Your task to perform on an android device: manage bookmarks in the chrome app Image 0: 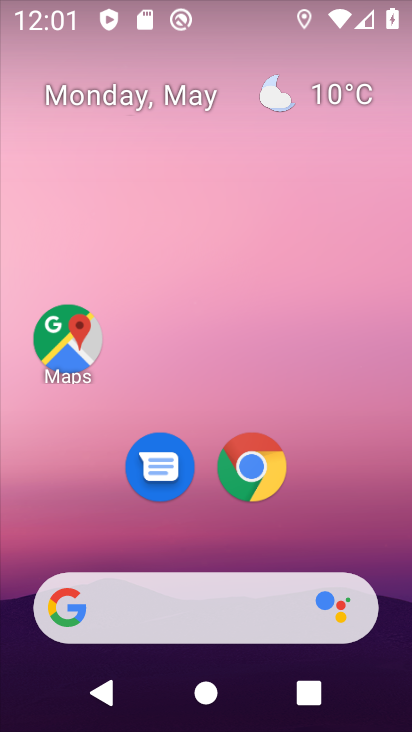
Step 0: click (370, 521)
Your task to perform on an android device: manage bookmarks in the chrome app Image 1: 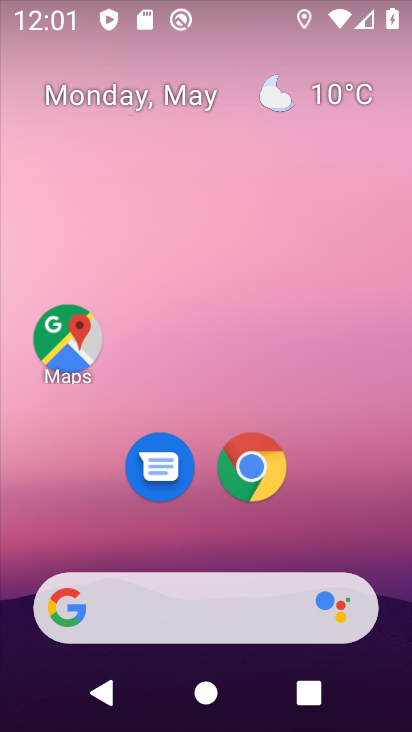
Step 1: drag from (369, 522) to (368, 158)
Your task to perform on an android device: manage bookmarks in the chrome app Image 2: 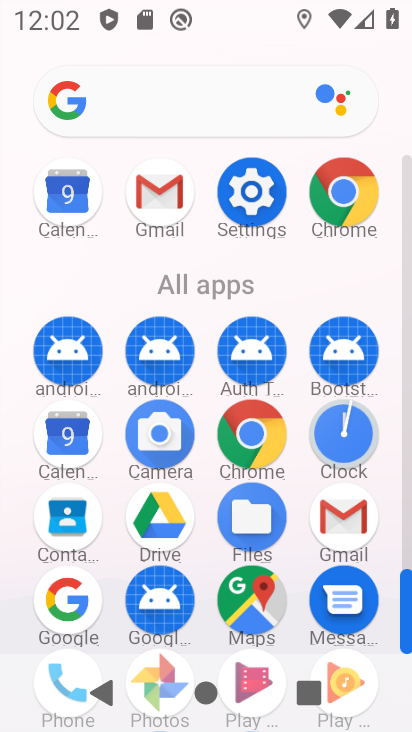
Step 2: click (239, 452)
Your task to perform on an android device: manage bookmarks in the chrome app Image 3: 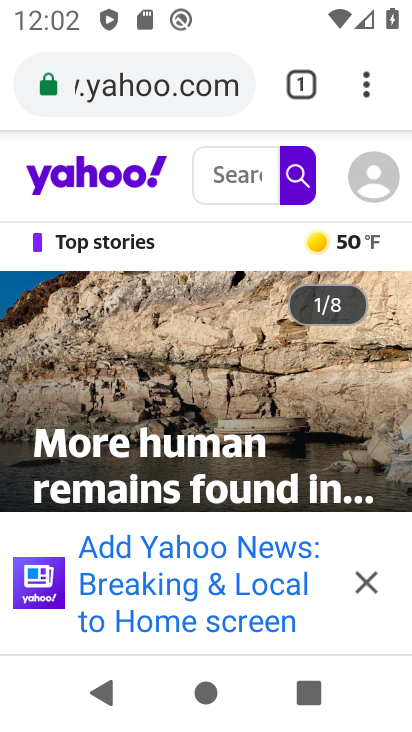
Step 3: drag from (373, 90) to (200, 329)
Your task to perform on an android device: manage bookmarks in the chrome app Image 4: 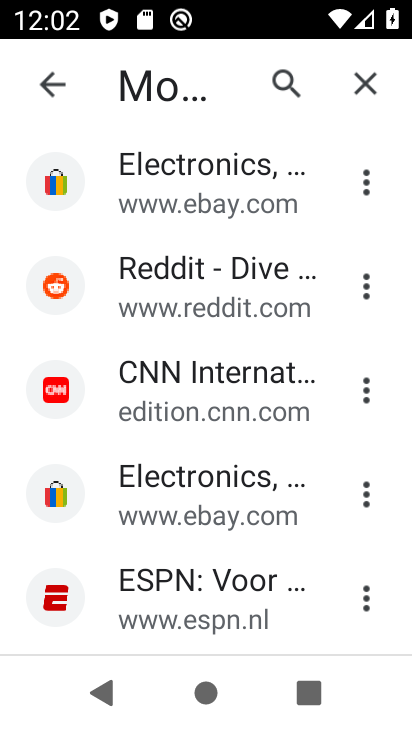
Step 4: click (366, 185)
Your task to perform on an android device: manage bookmarks in the chrome app Image 5: 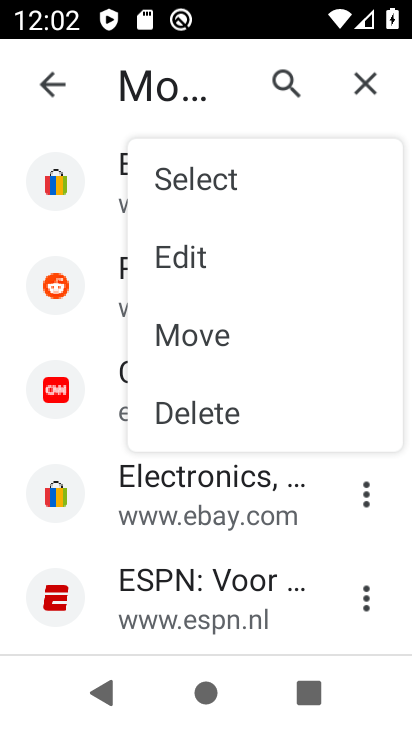
Step 5: click (221, 419)
Your task to perform on an android device: manage bookmarks in the chrome app Image 6: 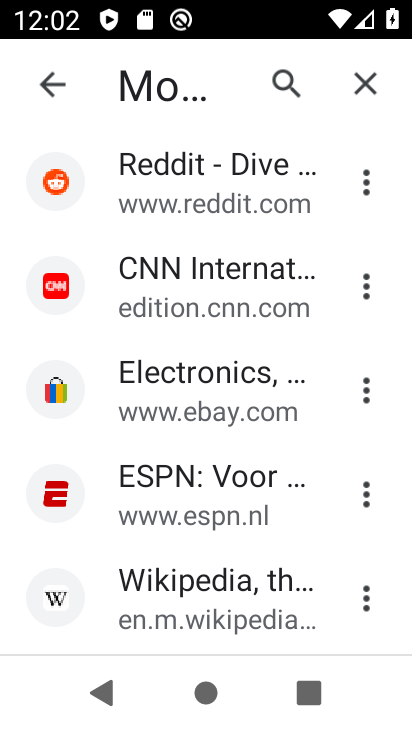
Step 6: task complete